Your task to perform on an android device: turn off picture-in-picture Image 0: 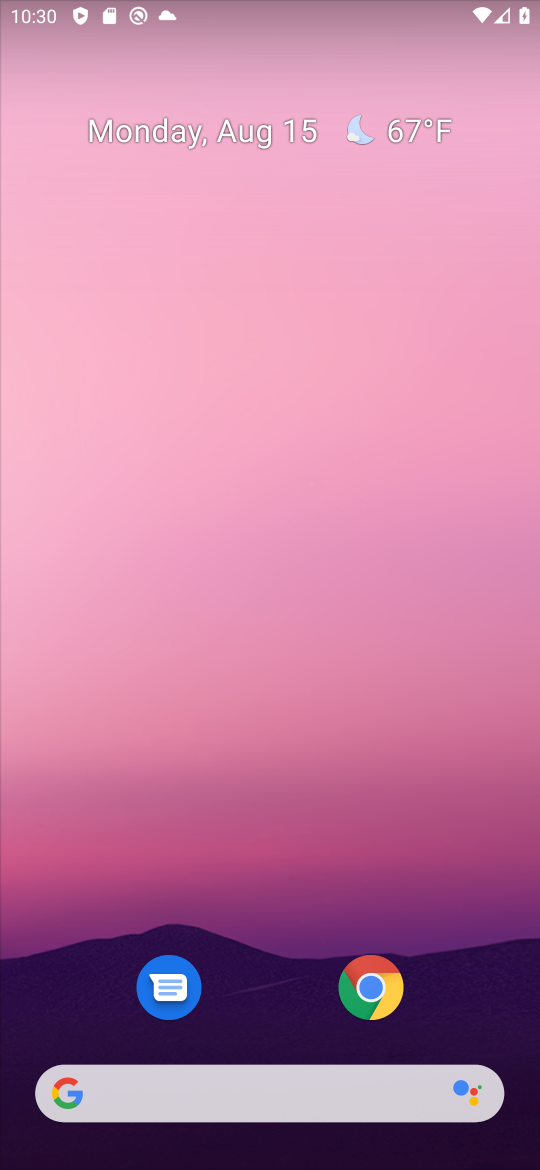
Step 0: drag from (323, 1016) to (199, 0)
Your task to perform on an android device: turn off picture-in-picture Image 1: 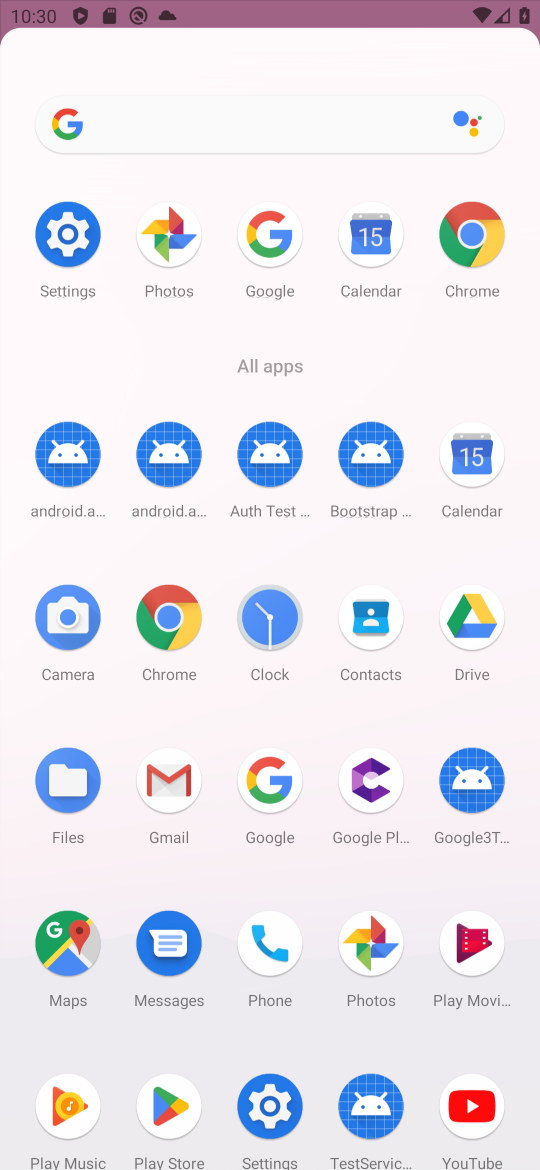
Step 1: click (276, 1134)
Your task to perform on an android device: turn off picture-in-picture Image 2: 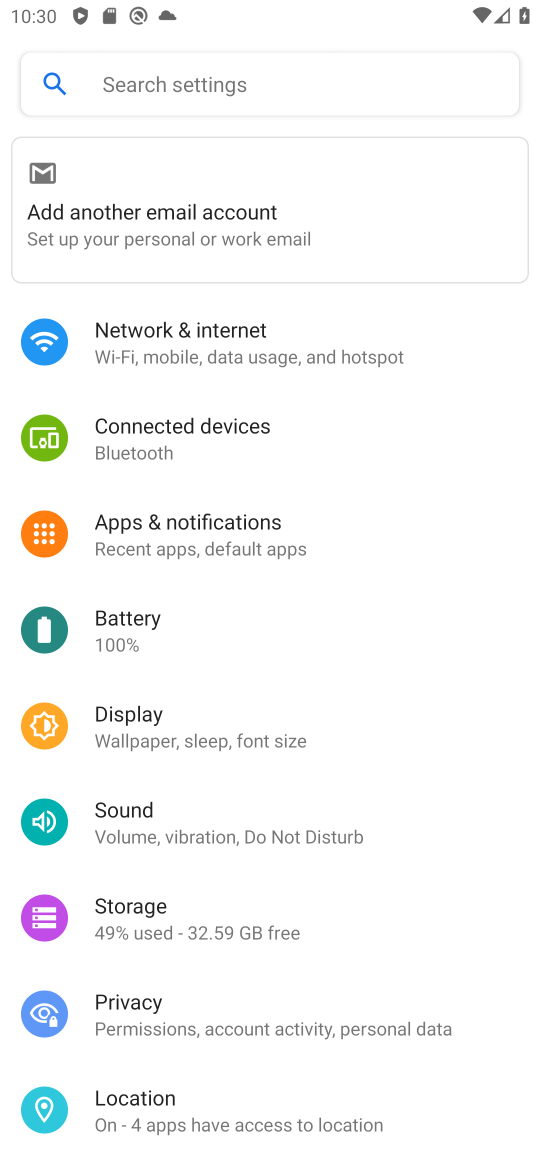
Step 2: click (145, 550)
Your task to perform on an android device: turn off picture-in-picture Image 3: 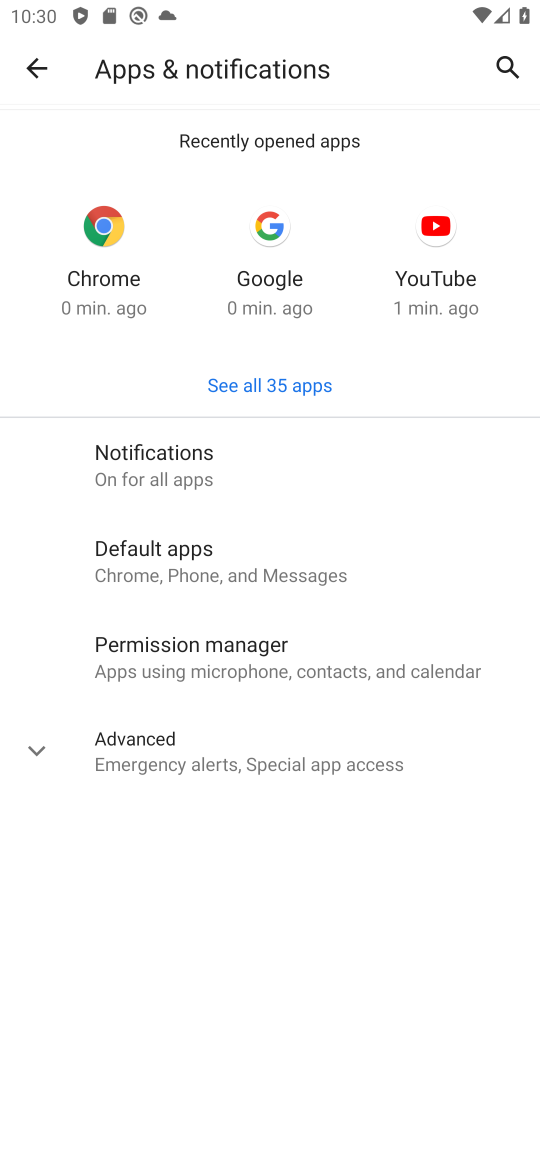
Step 3: click (208, 757)
Your task to perform on an android device: turn off picture-in-picture Image 4: 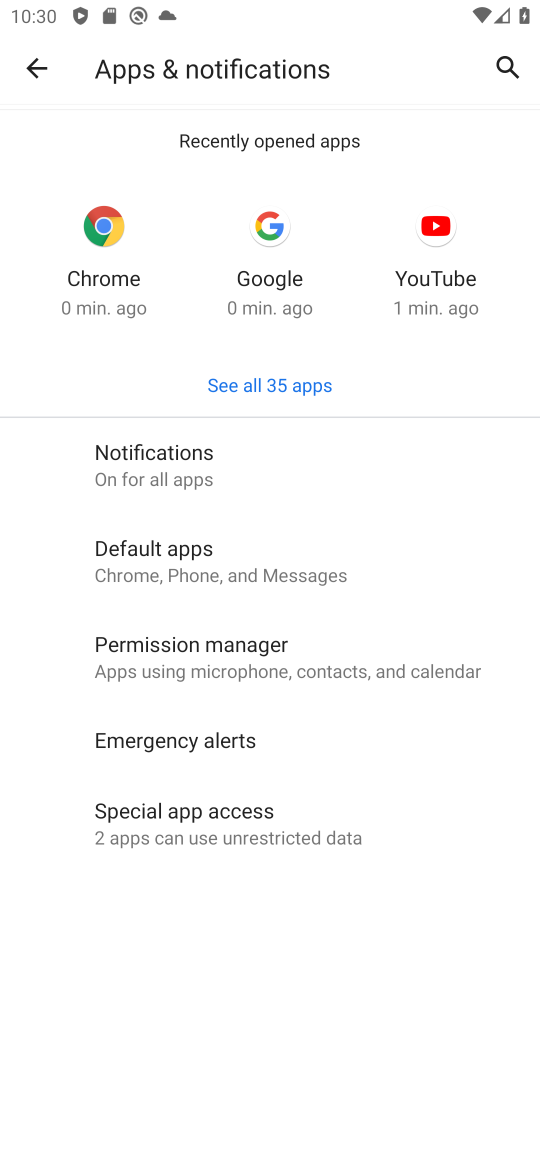
Step 4: click (215, 837)
Your task to perform on an android device: turn off picture-in-picture Image 5: 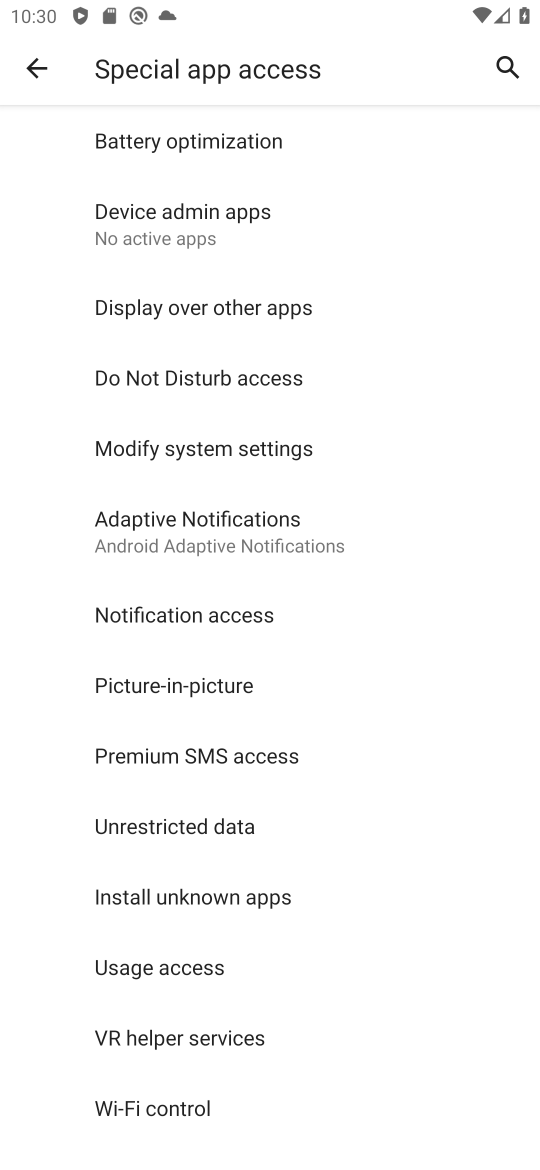
Step 5: click (194, 702)
Your task to perform on an android device: turn off picture-in-picture Image 6: 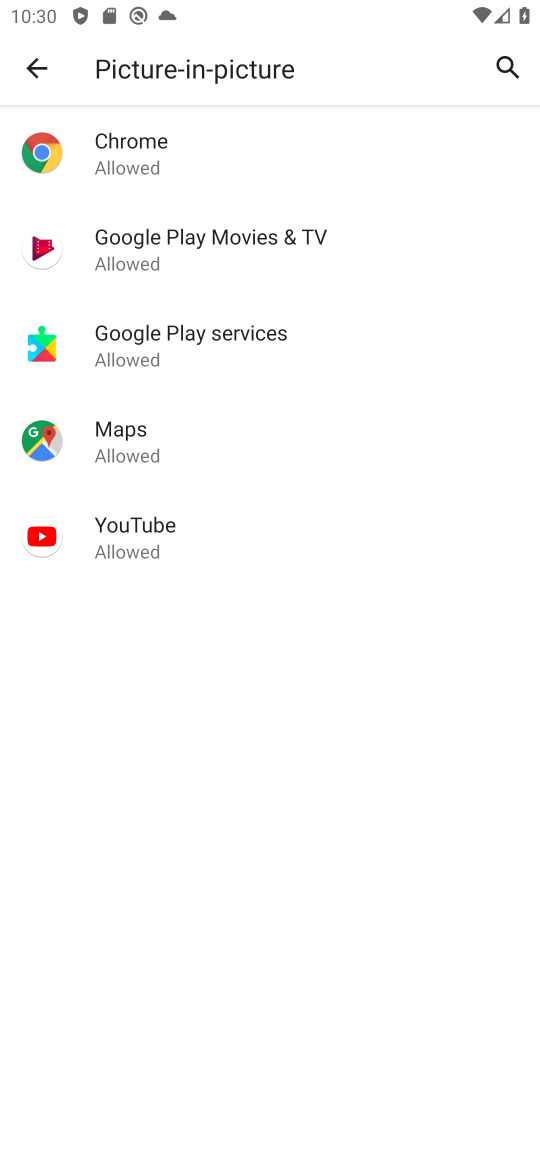
Step 6: task complete